Your task to perform on an android device: Open privacy settings Image 0: 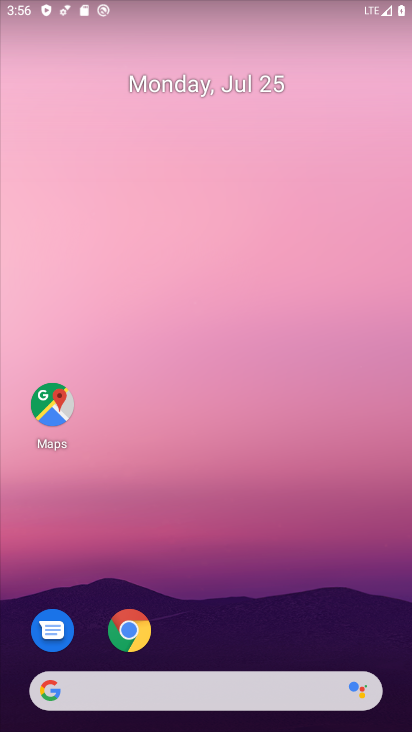
Step 0: drag from (226, 639) to (198, 235)
Your task to perform on an android device: Open privacy settings Image 1: 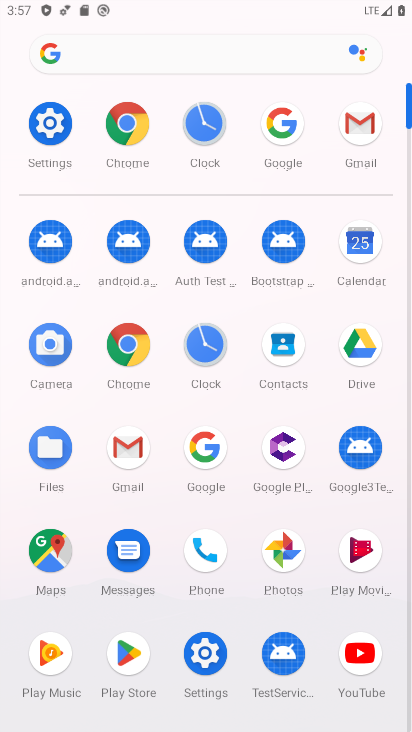
Step 1: click (45, 127)
Your task to perform on an android device: Open privacy settings Image 2: 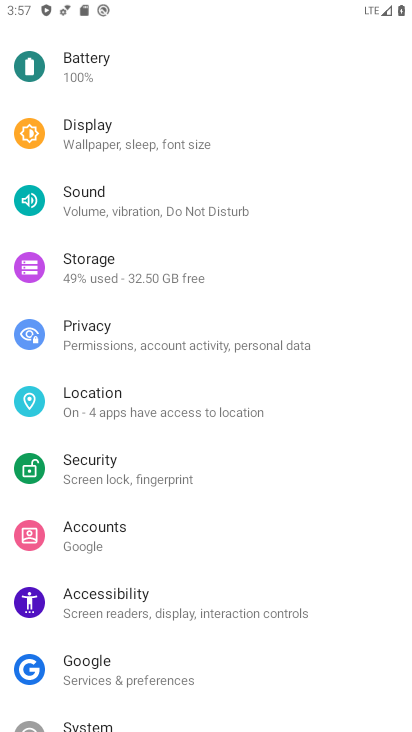
Step 2: click (146, 338)
Your task to perform on an android device: Open privacy settings Image 3: 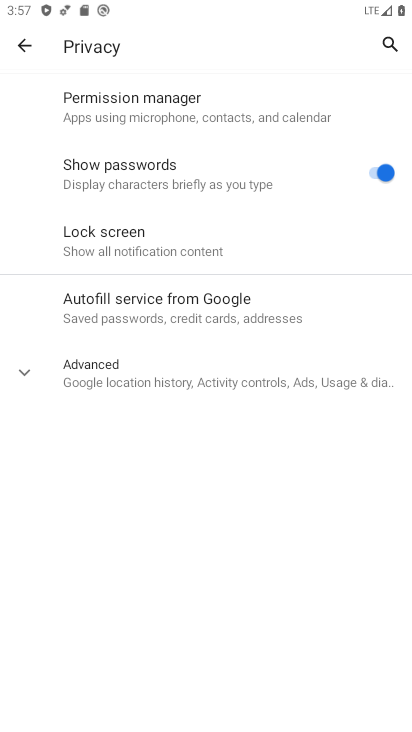
Step 3: task complete